Your task to perform on an android device: read, delete, or share a saved page in the chrome app Image 0: 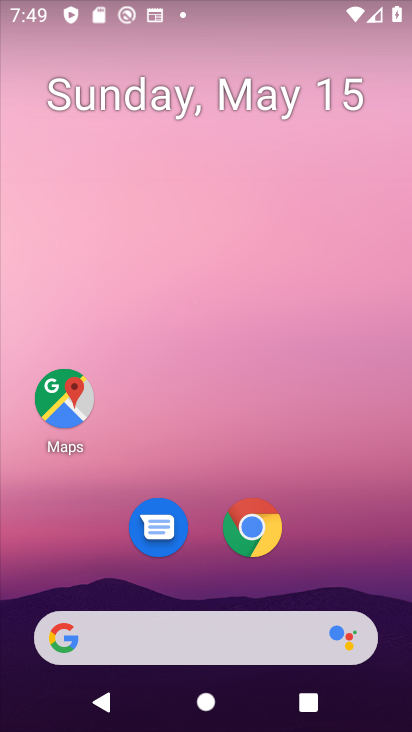
Step 0: drag from (199, 562) to (263, 243)
Your task to perform on an android device: read, delete, or share a saved page in the chrome app Image 1: 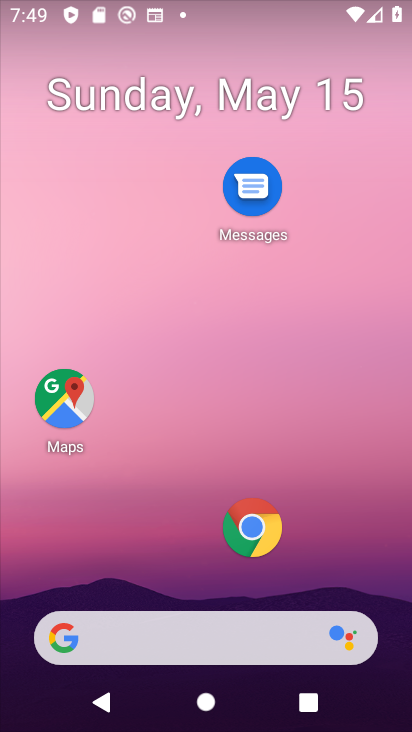
Step 1: click (247, 526)
Your task to perform on an android device: read, delete, or share a saved page in the chrome app Image 2: 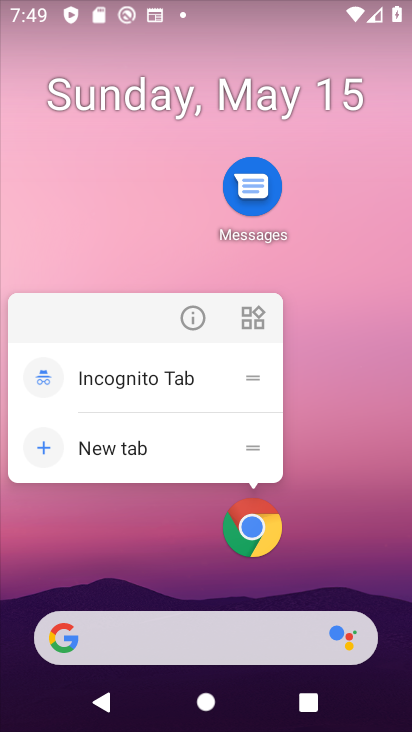
Step 2: click (266, 545)
Your task to perform on an android device: read, delete, or share a saved page in the chrome app Image 3: 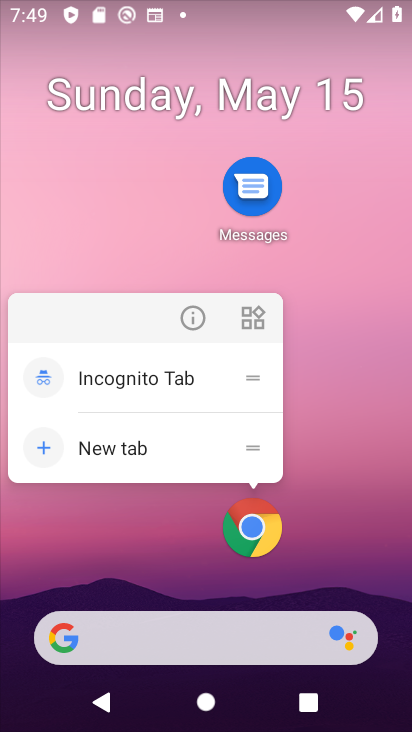
Step 3: click (256, 526)
Your task to perform on an android device: read, delete, or share a saved page in the chrome app Image 4: 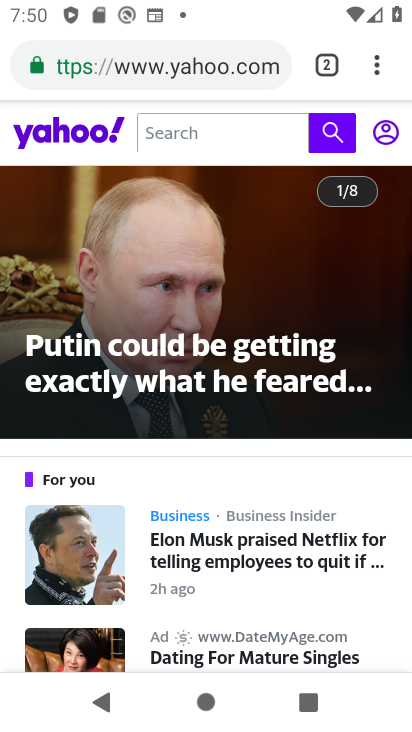
Step 4: drag from (373, 71) to (207, 427)
Your task to perform on an android device: read, delete, or share a saved page in the chrome app Image 5: 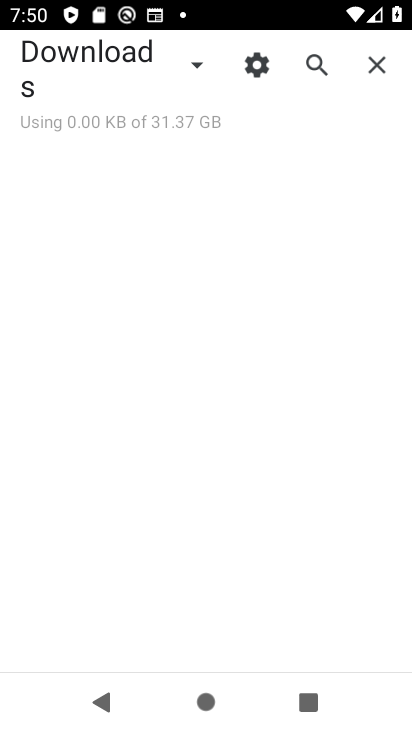
Step 5: click (147, 54)
Your task to perform on an android device: read, delete, or share a saved page in the chrome app Image 6: 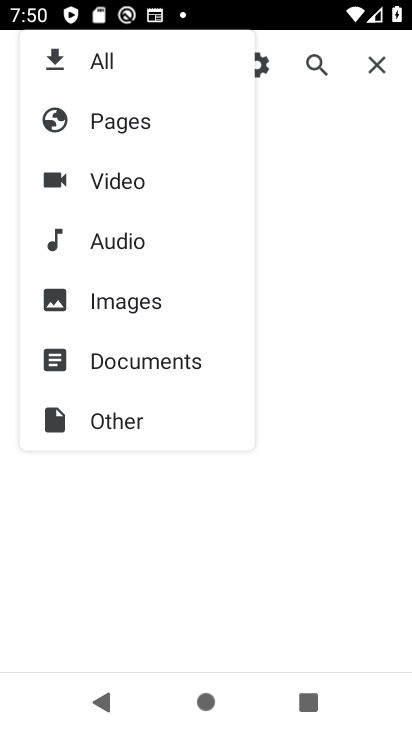
Step 6: click (125, 125)
Your task to perform on an android device: read, delete, or share a saved page in the chrome app Image 7: 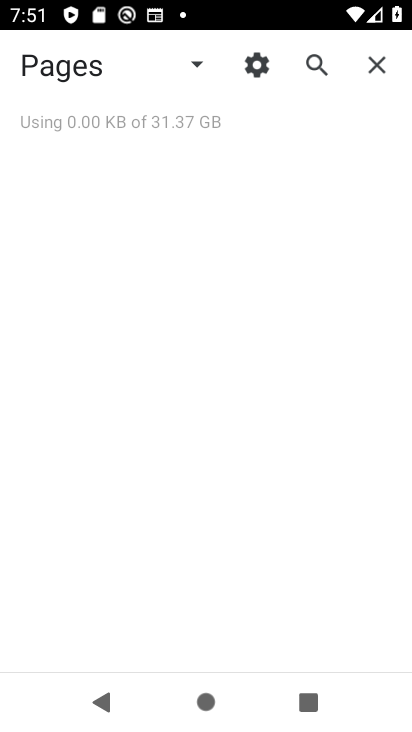
Step 7: task complete